Your task to perform on an android device: Go to network settings Image 0: 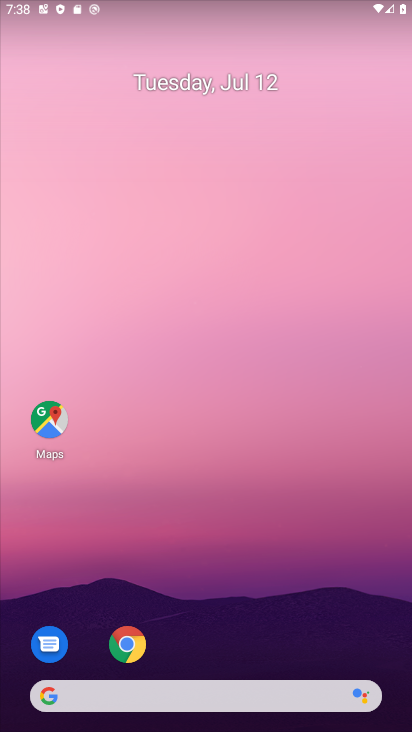
Step 0: drag from (245, 683) to (260, 316)
Your task to perform on an android device: Go to network settings Image 1: 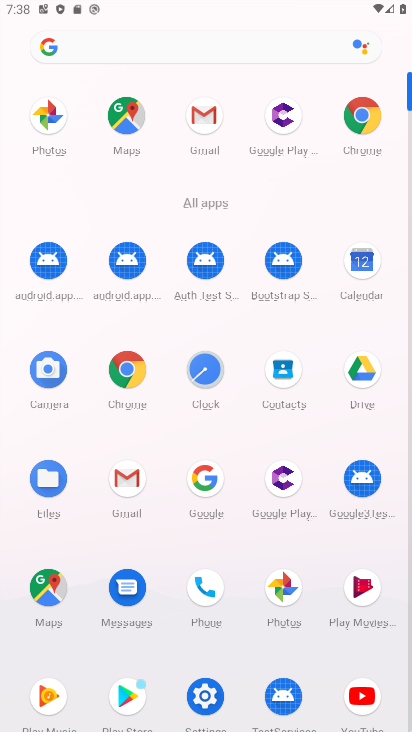
Step 1: click (201, 695)
Your task to perform on an android device: Go to network settings Image 2: 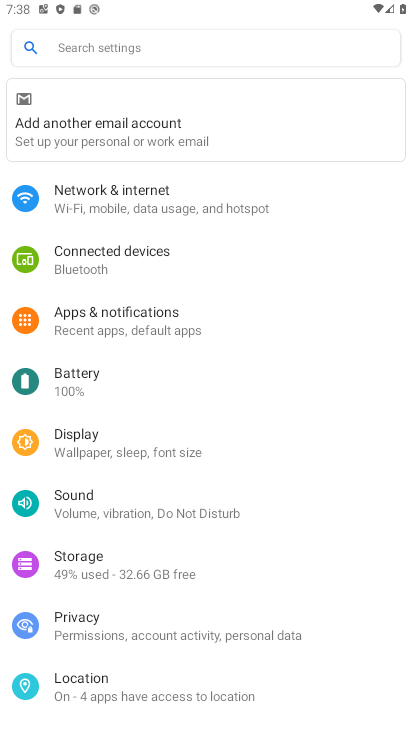
Step 2: click (100, 192)
Your task to perform on an android device: Go to network settings Image 3: 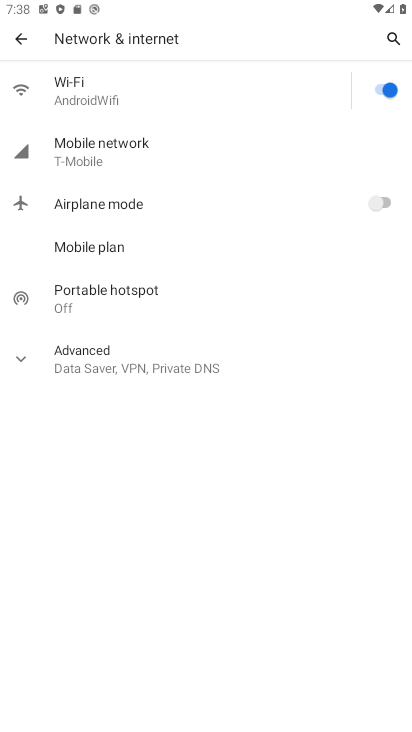
Step 3: click (65, 357)
Your task to perform on an android device: Go to network settings Image 4: 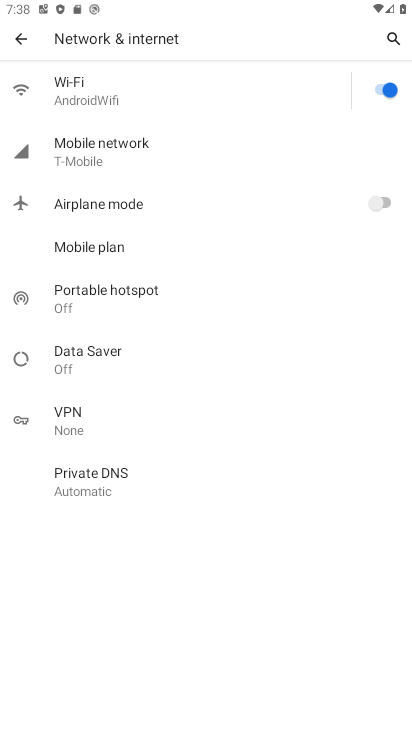
Step 4: task complete